Your task to perform on an android device: Open Google Chrome Image 0: 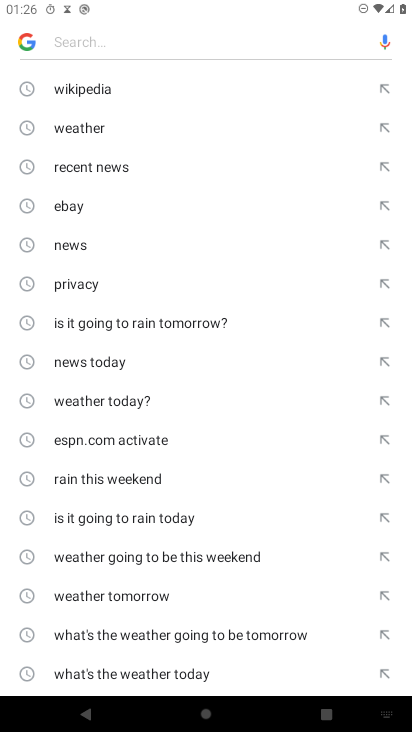
Step 0: press home button
Your task to perform on an android device: Open Google Chrome Image 1: 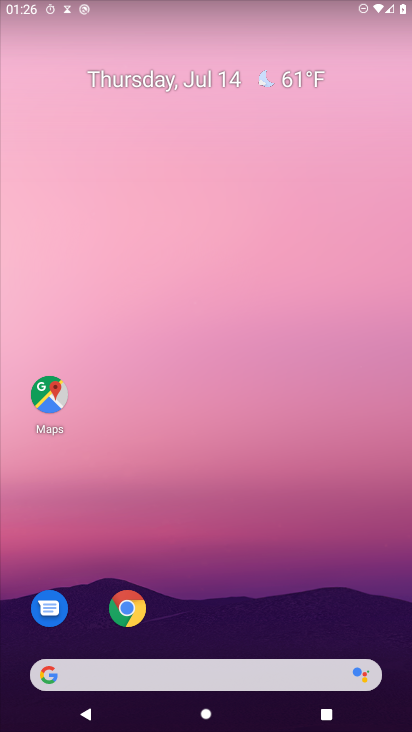
Step 1: click (116, 604)
Your task to perform on an android device: Open Google Chrome Image 2: 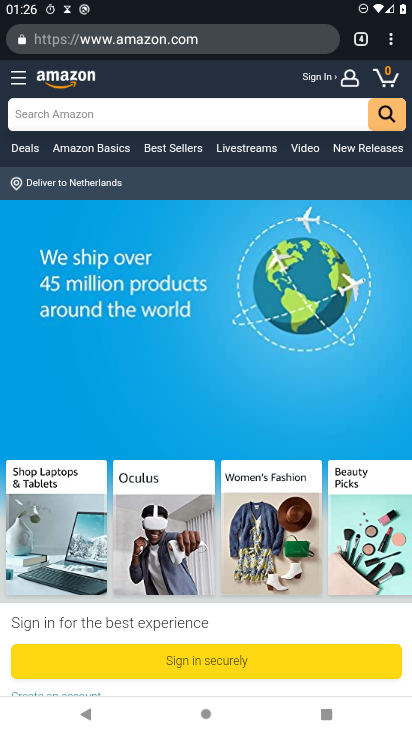
Step 2: task complete